Your task to perform on an android device: turn vacation reply on in the gmail app Image 0: 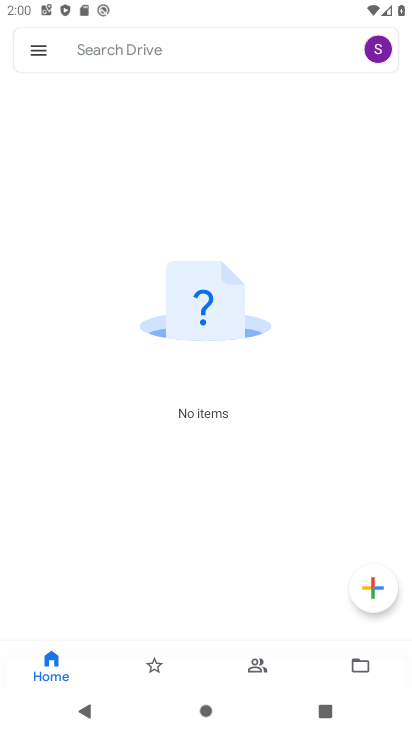
Step 0: drag from (245, 503) to (273, 323)
Your task to perform on an android device: turn vacation reply on in the gmail app Image 1: 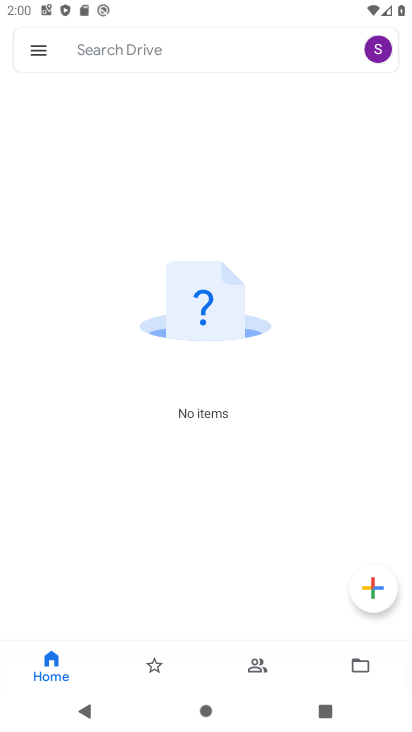
Step 1: drag from (221, 553) to (269, 261)
Your task to perform on an android device: turn vacation reply on in the gmail app Image 2: 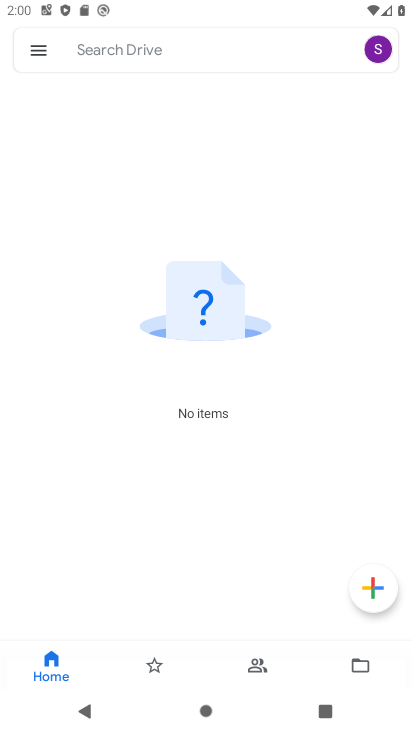
Step 2: press home button
Your task to perform on an android device: turn vacation reply on in the gmail app Image 3: 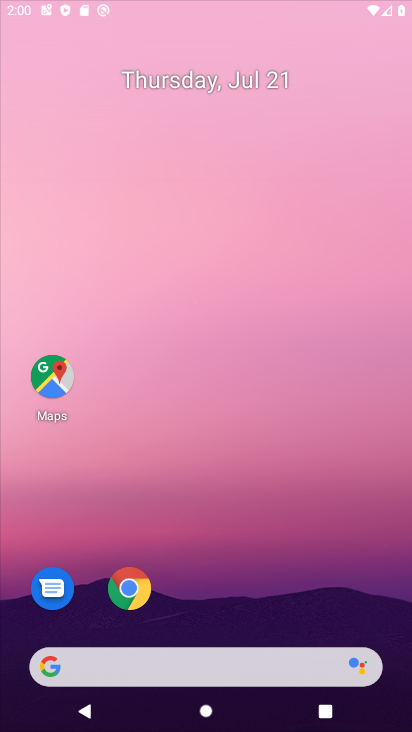
Step 3: drag from (234, 609) to (294, 27)
Your task to perform on an android device: turn vacation reply on in the gmail app Image 4: 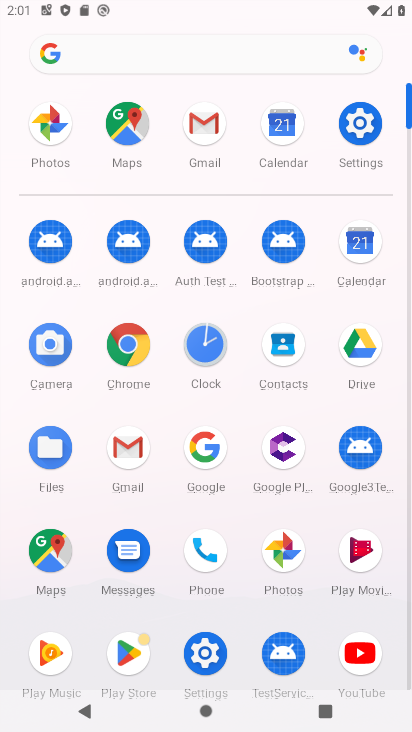
Step 4: click (135, 444)
Your task to perform on an android device: turn vacation reply on in the gmail app Image 5: 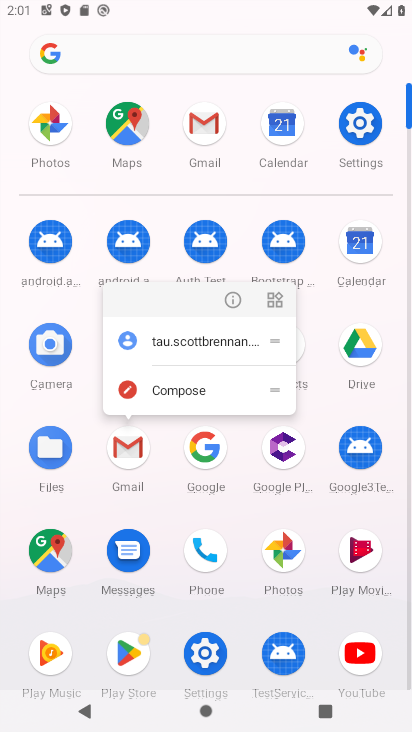
Step 5: click (226, 296)
Your task to perform on an android device: turn vacation reply on in the gmail app Image 6: 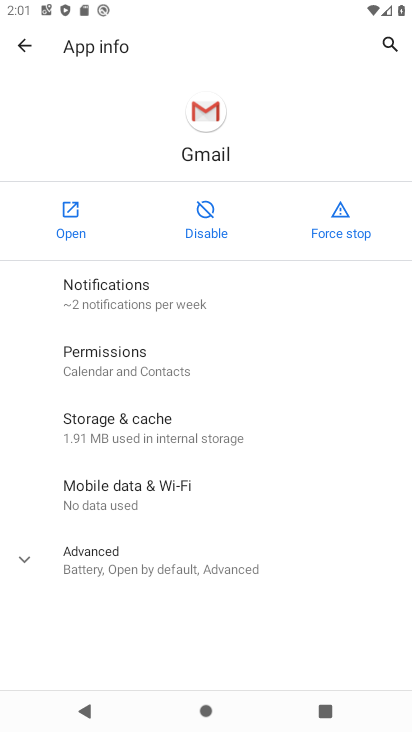
Step 6: click (51, 216)
Your task to perform on an android device: turn vacation reply on in the gmail app Image 7: 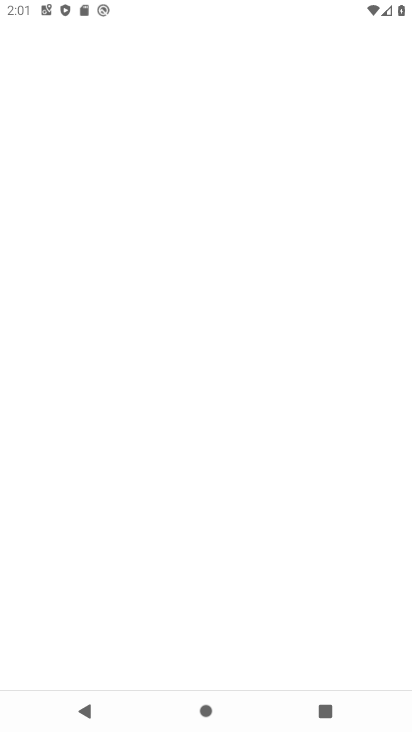
Step 7: drag from (192, 600) to (207, 315)
Your task to perform on an android device: turn vacation reply on in the gmail app Image 8: 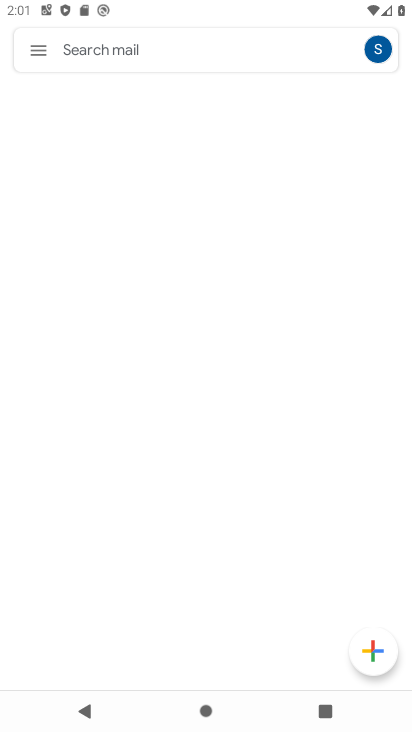
Step 8: click (45, 51)
Your task to perform on an android device: turn vacation reply on in the gmail app Image 9: 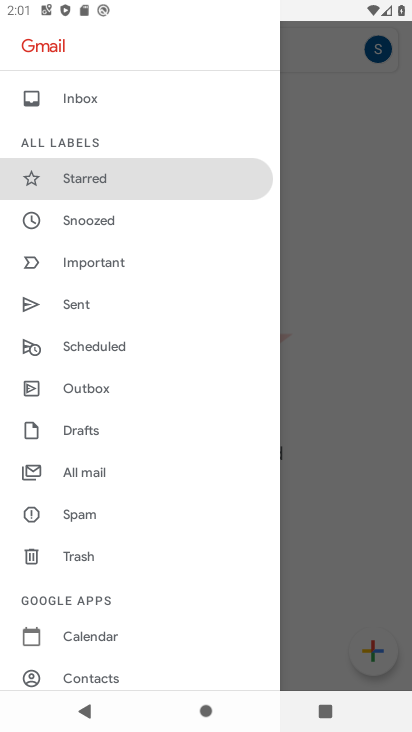
Step 9: drag from (88, 624) to (239, 16)
Your task to perform on an android device: turn vacation reply on in the gmail app Image 10: 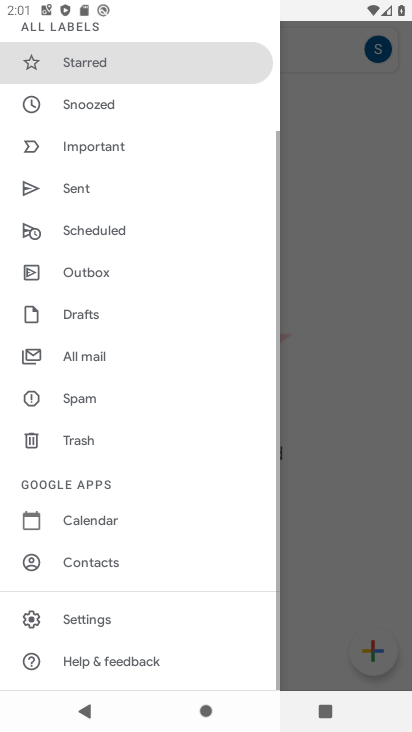
Step 10: click (83, 617)
Your task to perform on an android device: turn vacation reply on in the gmail app Image 11: 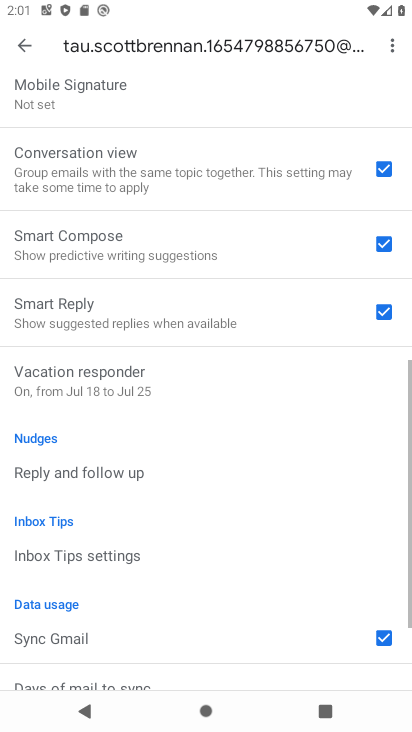
Step 11: drag from (123, 579) to (291, 10)
Your task to perform on an android device: turn vacation reply on in the gmail app Image 12: 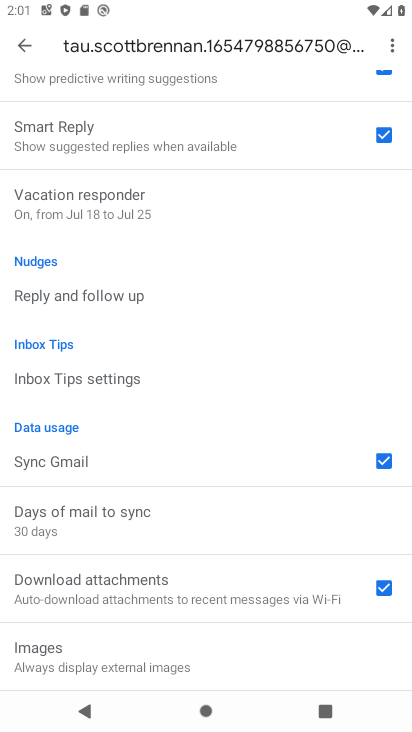
Step 12: click (142, 195)
Your task to perform on an android device: turn vacation reply on in the gmail app Image 13: 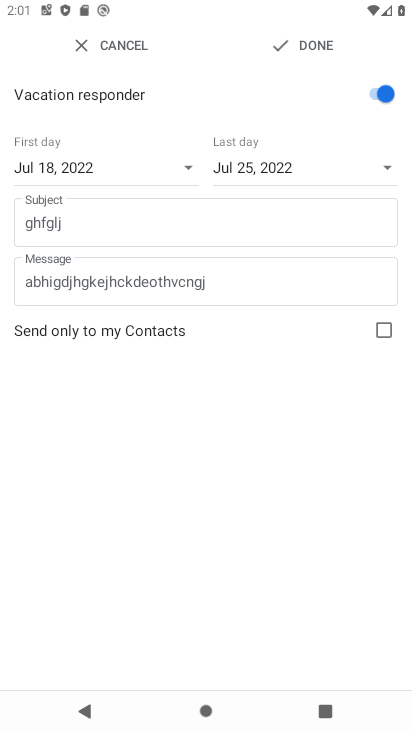
Step 13: click (316, 44)
Your task to perform on an android device: turn vacation reply on in the gmail app Image 14: 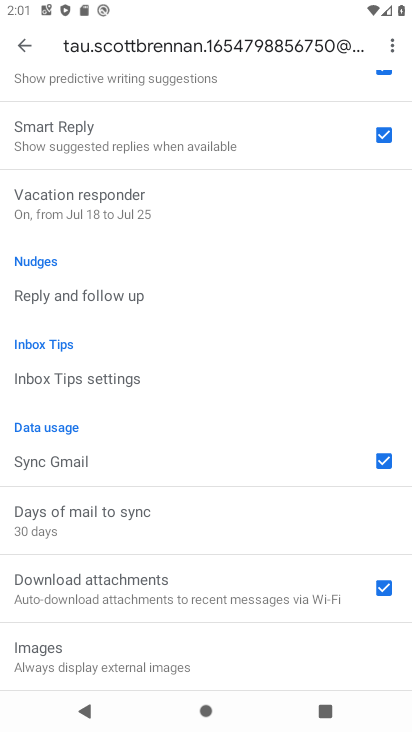
Step 14: task complete